Your task to perform on an android device: turn pop-ups off in chrome Image 0: 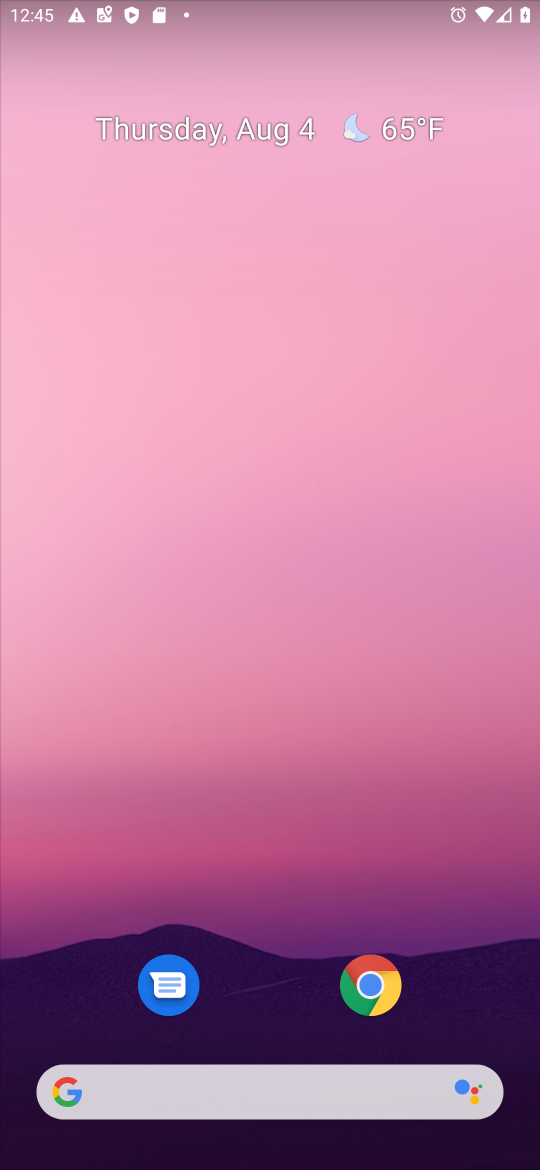
Step 0: click (368, 988)
Your task to perform on an android device: turn pop-ups off in chrome Image 1: 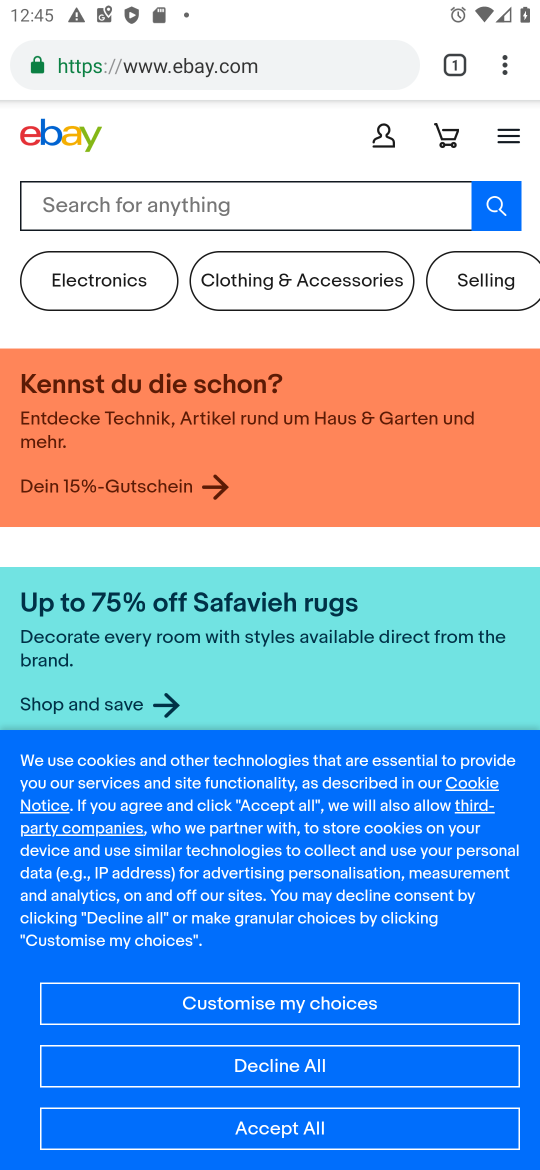
Step 1: click (511, 62)
Your task to perform on an android device: turn pop-ups off in chrome Image 2: 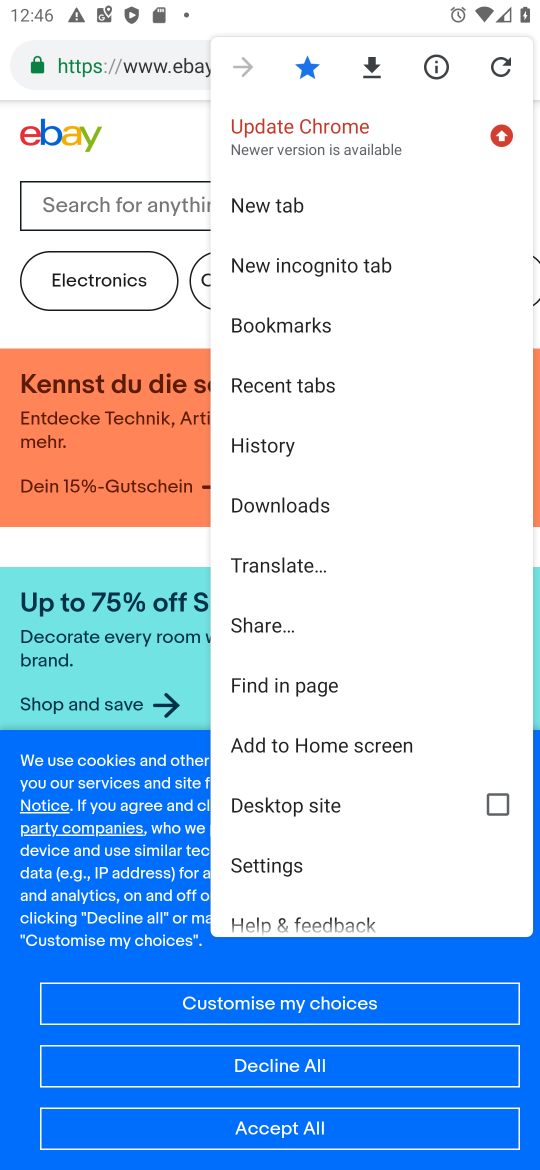
Step 2: click (274, 858)
Your task to perform on an android device: turn pop-ups off in chrome Image 3: 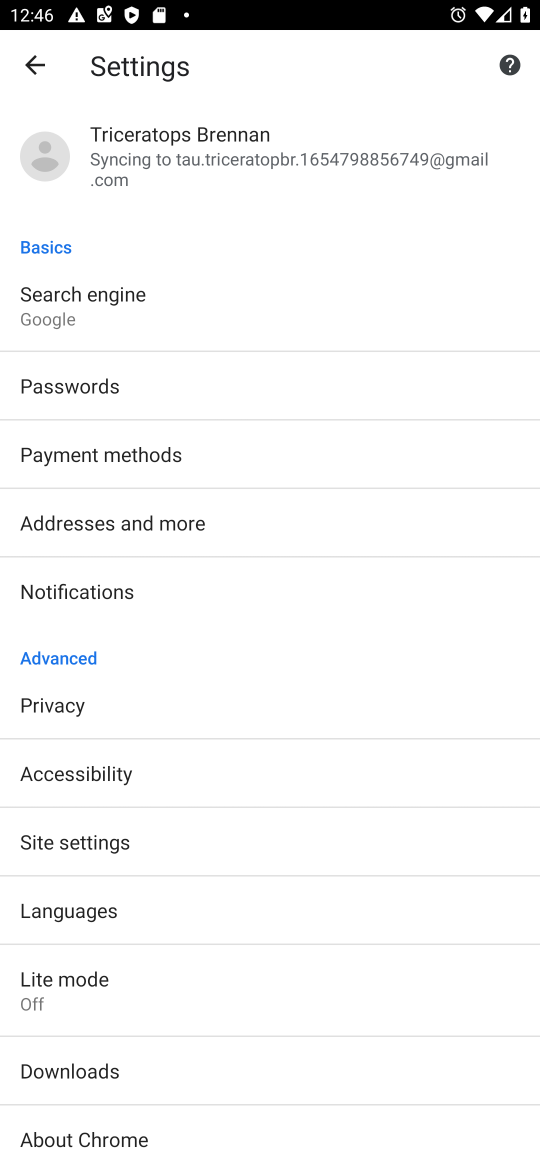
Step 3: click (63, 840)
Your task to perform on an android device: turn pop-ups off in chrome Image 4: 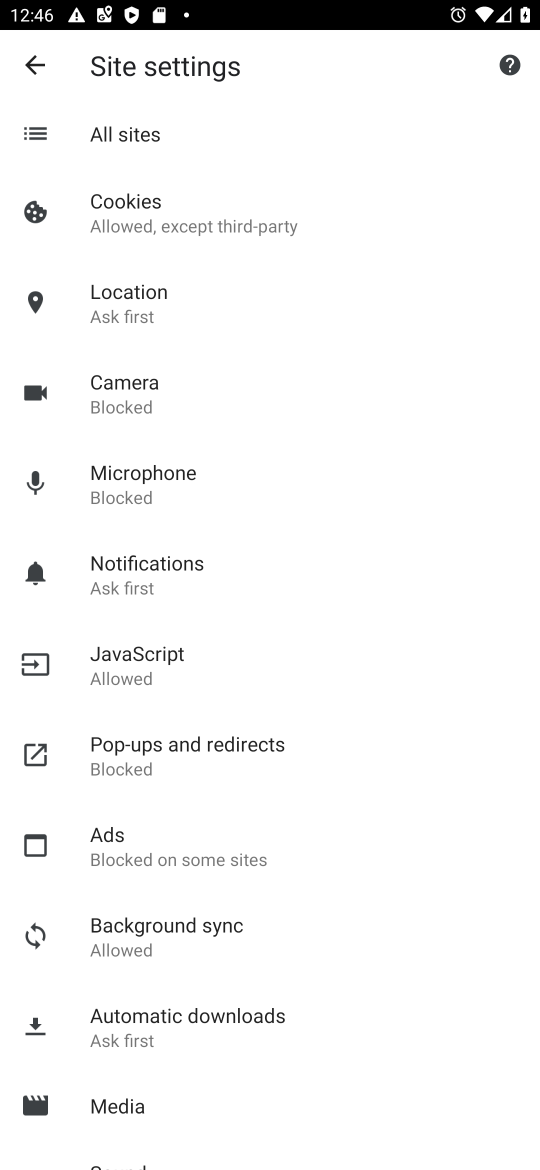
Step 4: click (178, 745)
Your task to perform on an android device: turn pop-ups off in chrome Image 5: 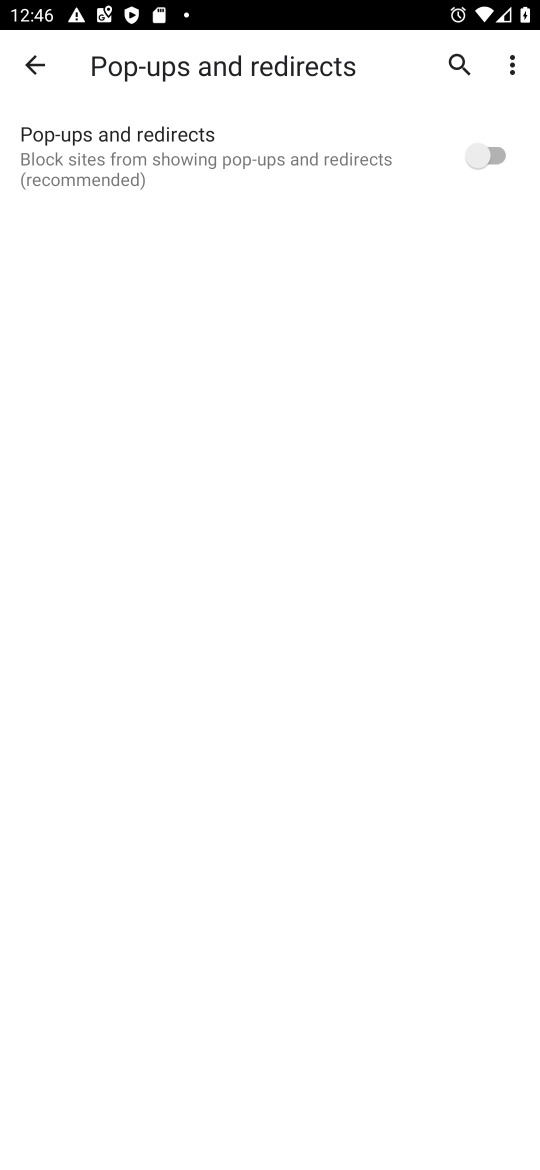
Step 5: task complete